Your task to perform on an android device: Open Google Chrome Image 0: 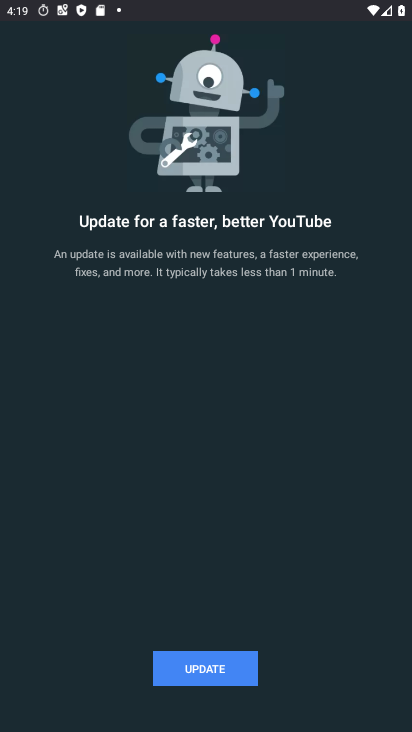
Step 0: press home button
Your task to perform on an android device: Open Google Chrome Image 1: 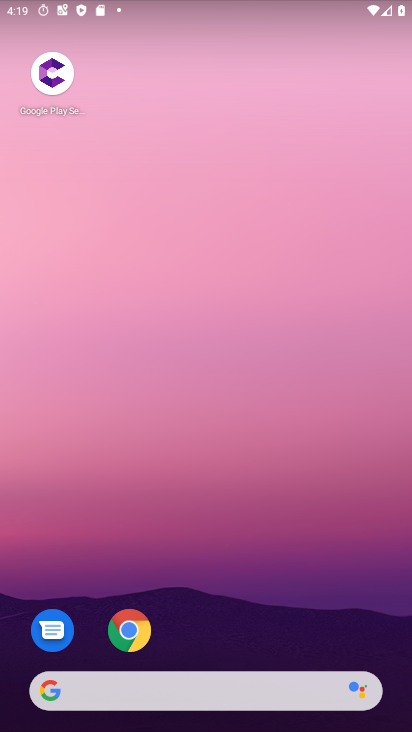
Step 1: drag from (147, 642) to (254, 12)
Your task to perform on an android device: Open Google Chrome Image 2: 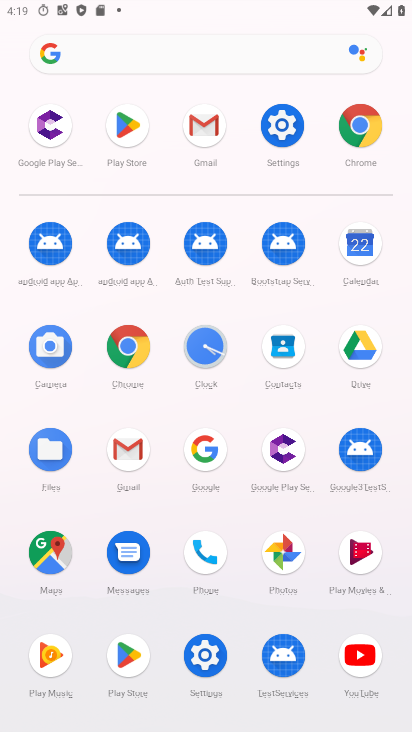
Step 2: click (131, 348)
Your task to perform on an android device: Open Google Chrome Image 3: 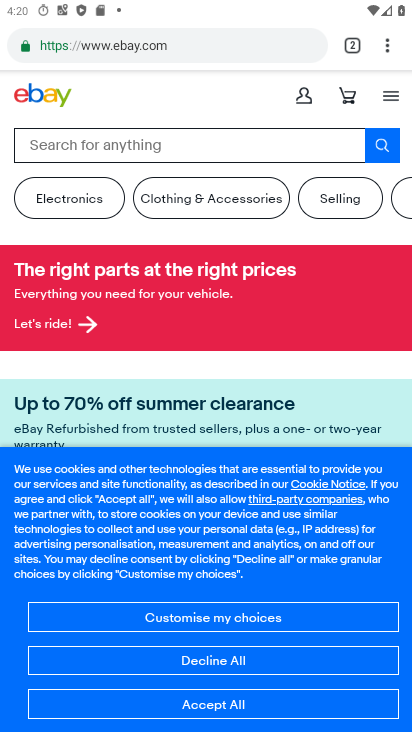
Step 3: task complete